Your task to perform on an android device: Is it going to rain this weekend? Image 0: 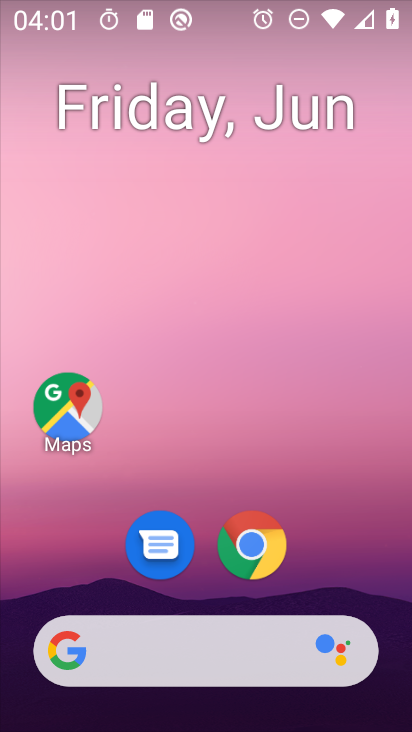
Step 0: click (169, 652)
Your task to perform on an android device: Is it going to rain this weekend? Image 1: 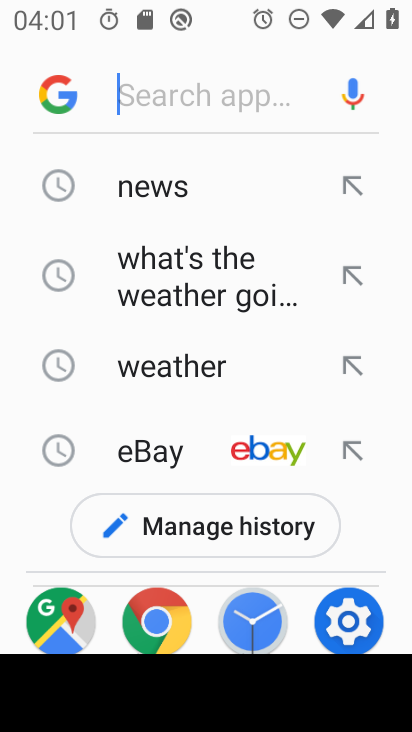
Step 1: type "is it going to rain this weekend"
Your task to perform on an android device: Is it going to rain this weekend? Image 2: 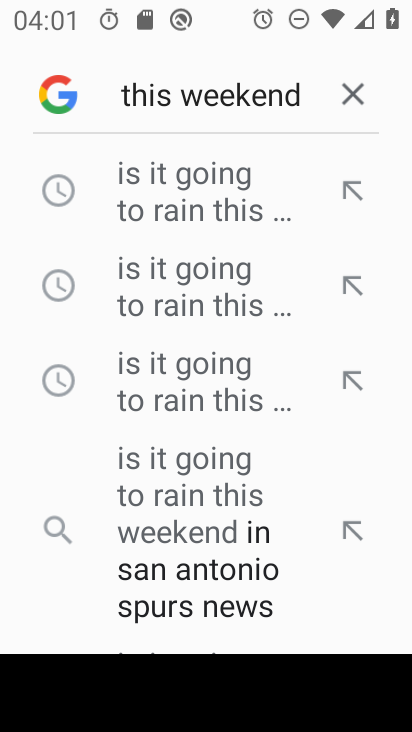
Step 2: click (142, 173)
Your task to perform on an android device: Is it going to rain this weekend? Image 3: 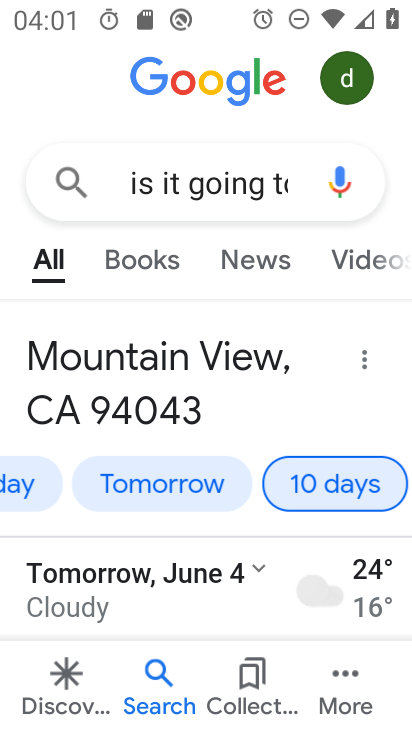
Step 3: task complete